Your task to perform on an android device: Clear all items from cart on bestbuy. Search for lenovo thinkpad on bestbuy, select the first entry, and add it to the cart. Image 0: 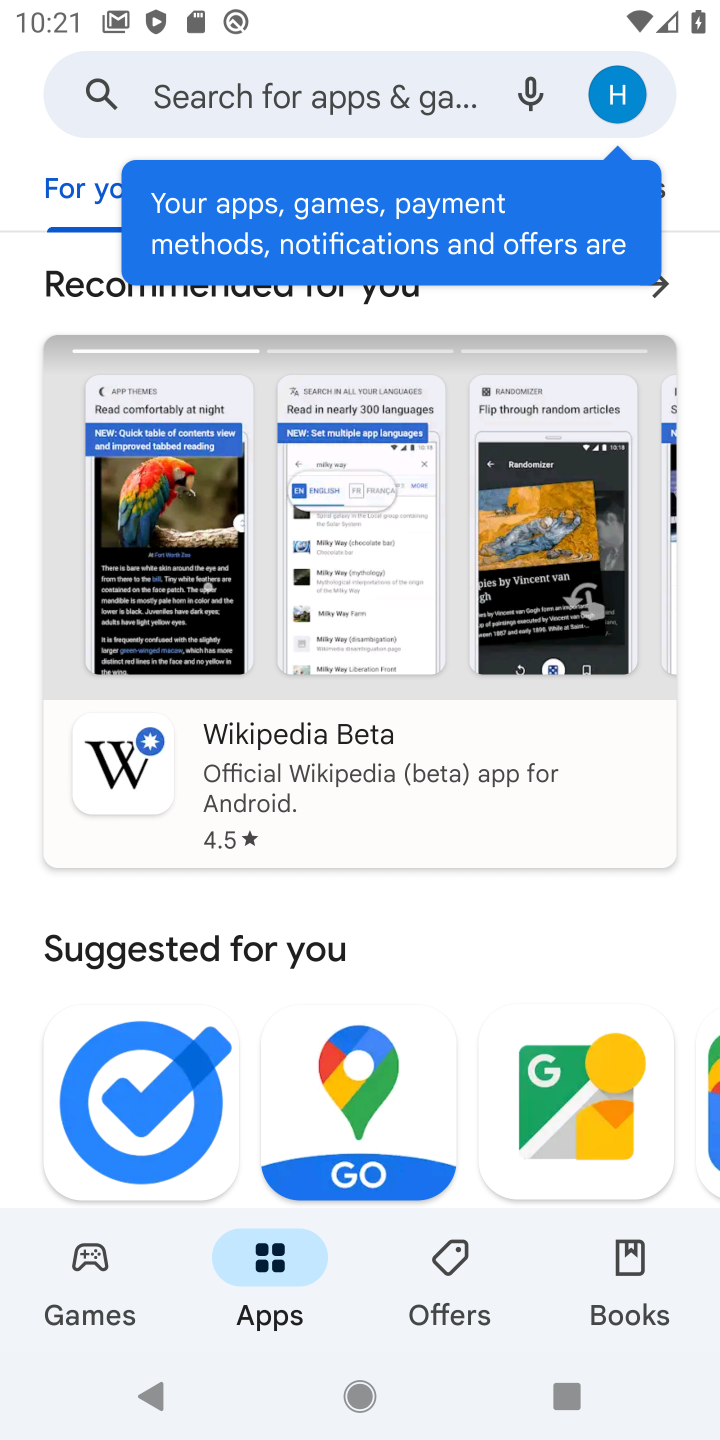
Step 0: click (303, 88)
Your task to perform on an android device: Clear all items from cart on bestbuy. Search for lenovo thinkpad on bestbuy, select the first entry, and add it to the cart. Image 1: 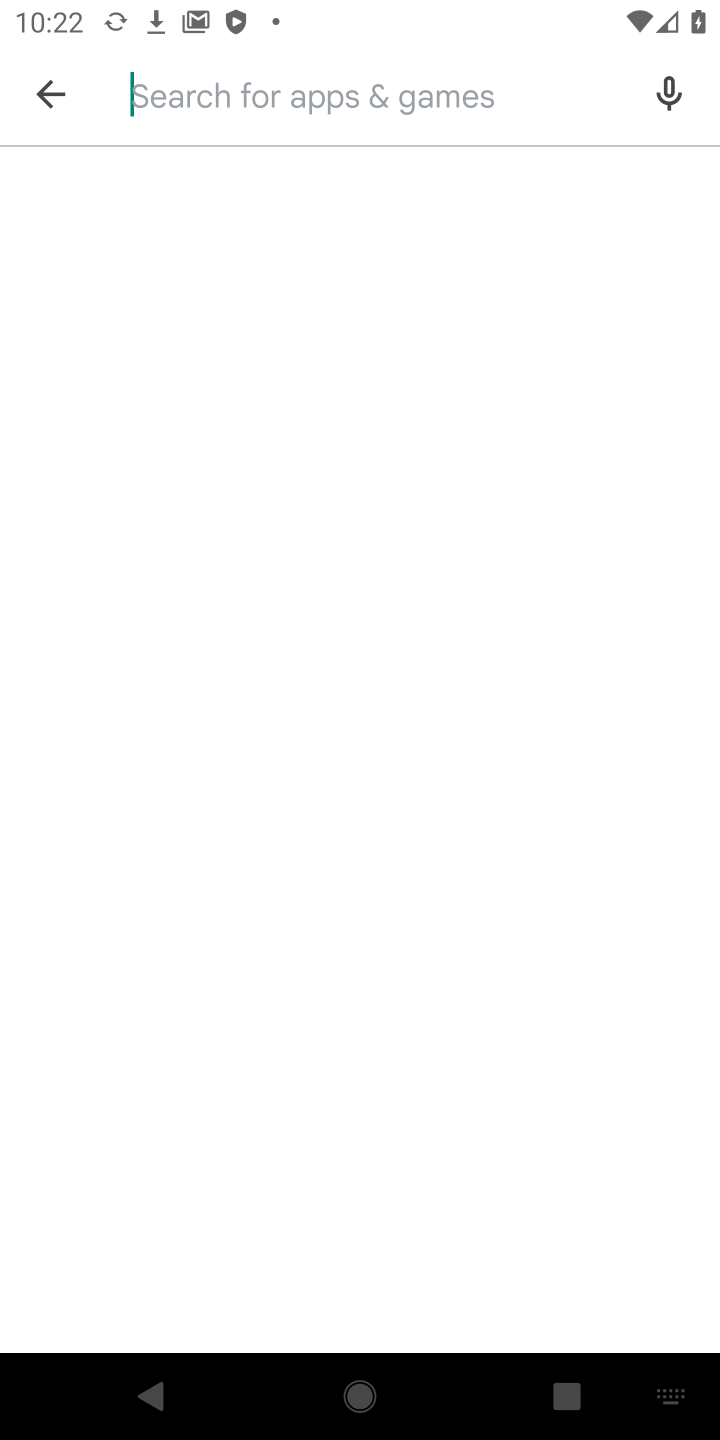
Step 1: type "newegg"
Your task to perform on an android device: Clear all items from cart on bestbuy. Search for lenovo thinkpad on bestbuy, select the first entry, and add it to the cart. Image 2: 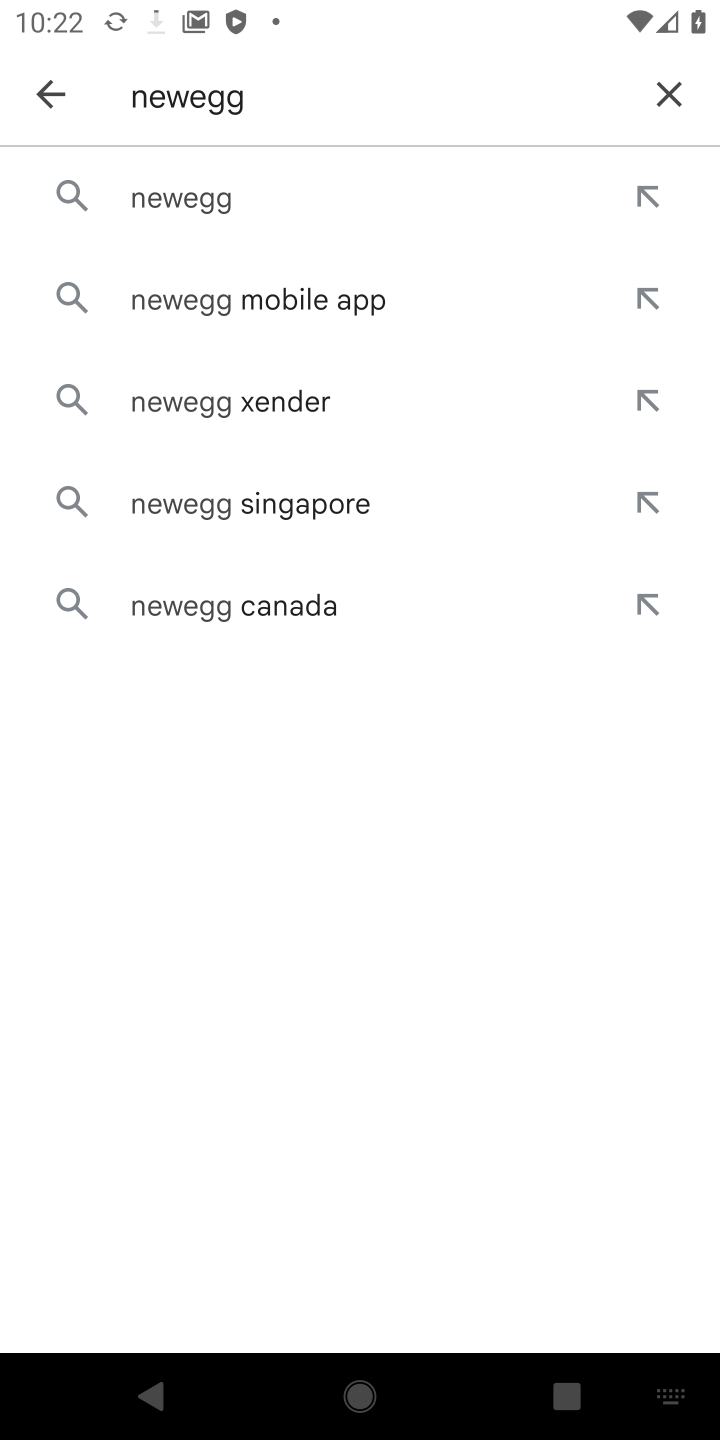
Step 2: click (179, 184)
Your task to perform on an android device: Clear all items from cart on bestbuy. Search for lenovo thinkpad on bestbuy, select the first entry, and add it to the cart. Image 3: 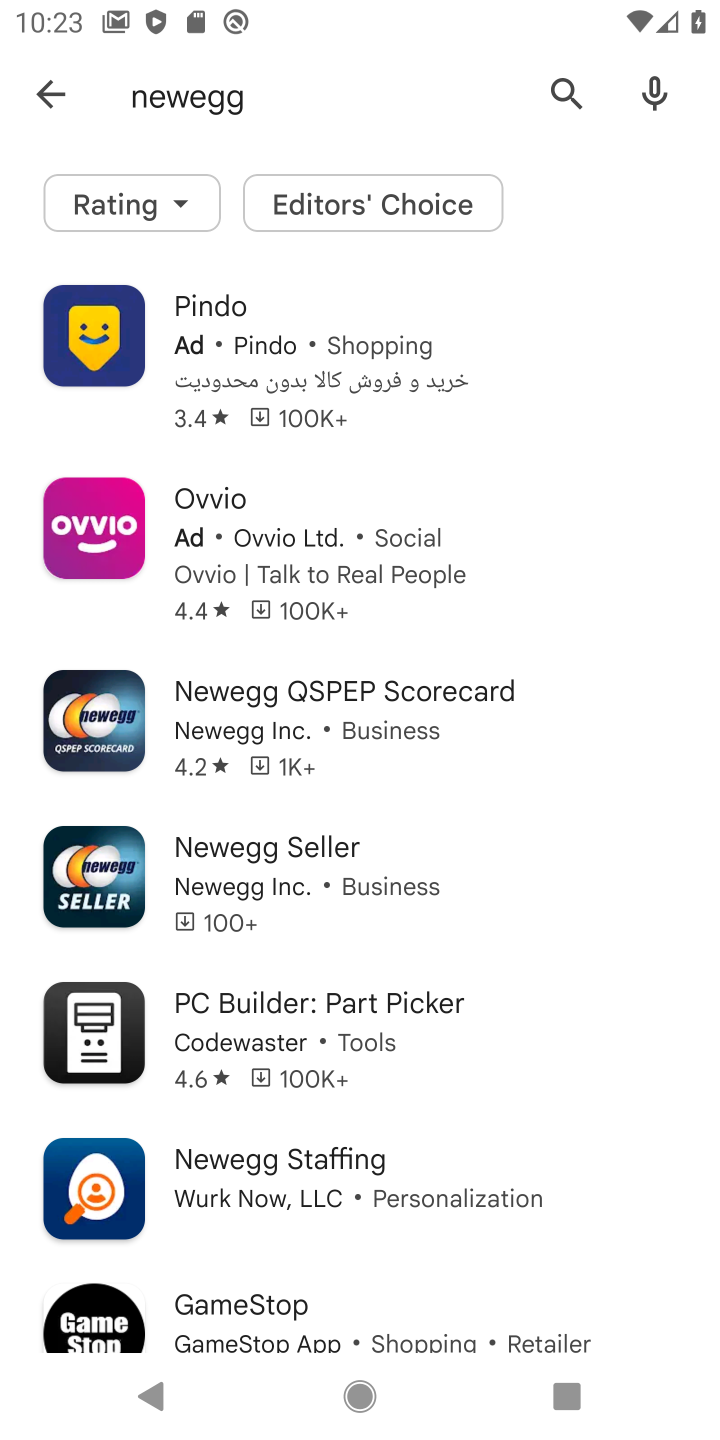
Step 3: task complete